Your task to perform on an android device: Open calendar and show me the second week of next month Image 0: 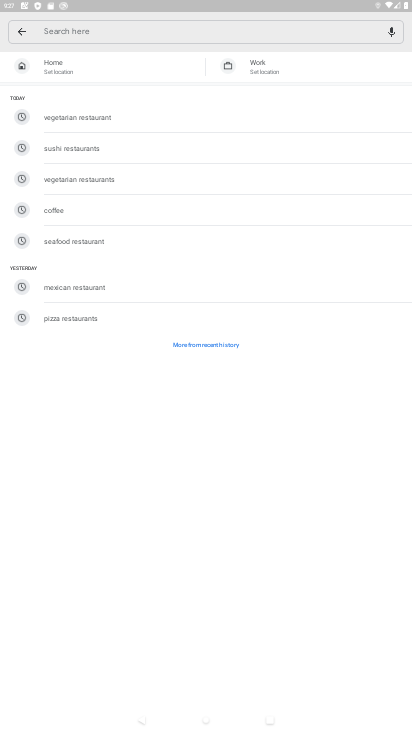
Step 0: click (291, 463)
Your task to perform on an android device: Open calendar and show me the second week of next month Image 1: 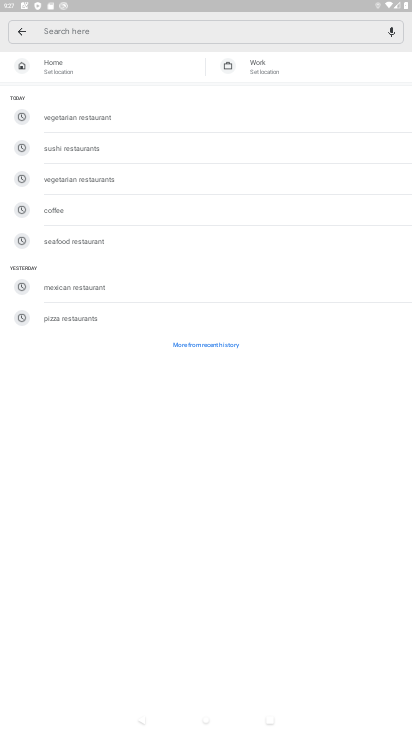
Step 1: task complete